Your task to perform on an android device: change keyboard looks Image 0: 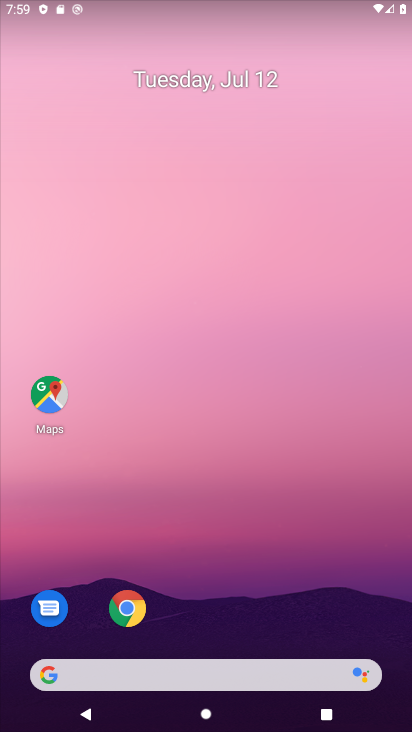
Step 0: drag from (172, 684) to (351, 135)
Your task to perform on an android device: change keyboard looks Image 1: 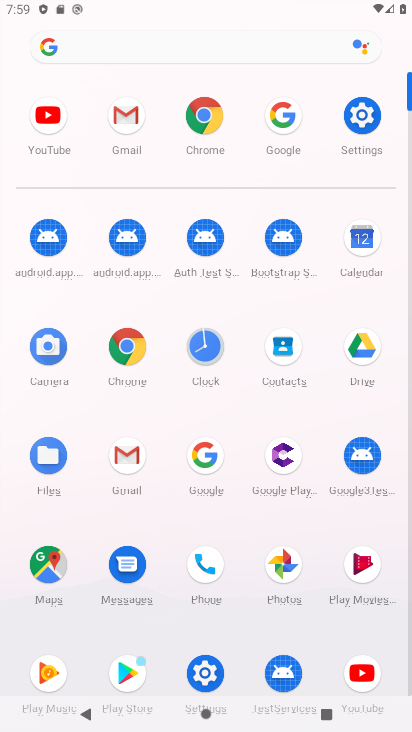
Step 1: click (366, 113)
Your task to perform on an android device: change keyboard looks Image 2: 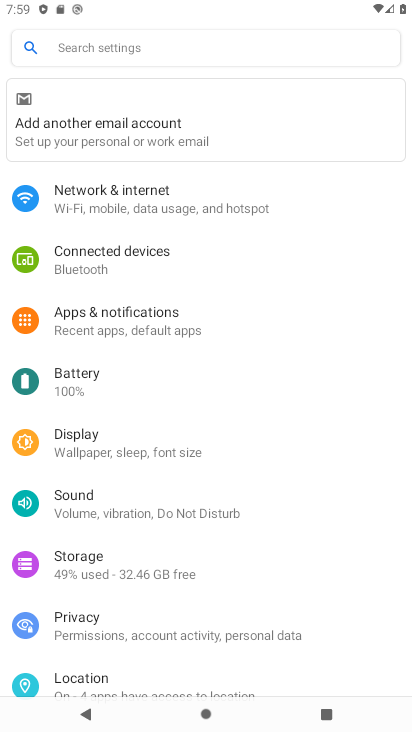
Step 2: drag from (147, 639) to (357, 5)
Your task to perform on an android device: change keyboard looks Image 3: 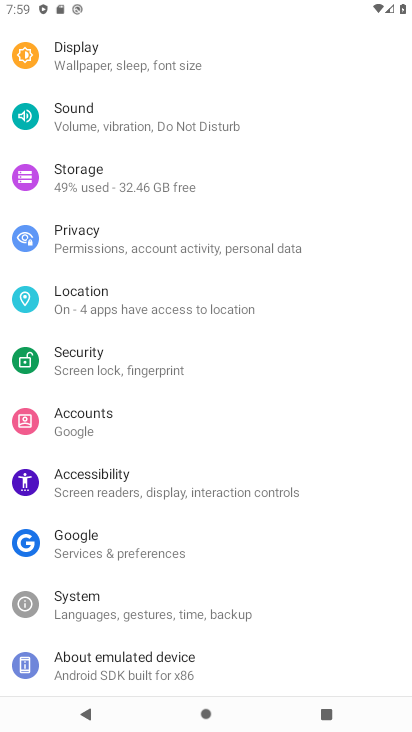
Step 3: click (166, 684)
Your task to perform on an android device: change keyboard looks Image 4: 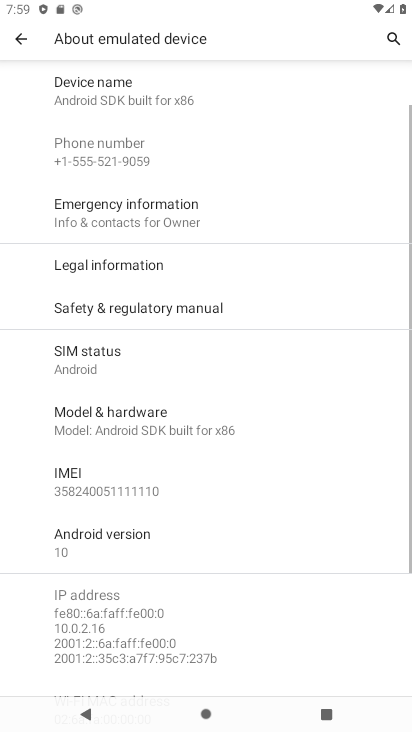
Step 4: press back button
Your task to perform on an android device: change keyboard looks Image 5: 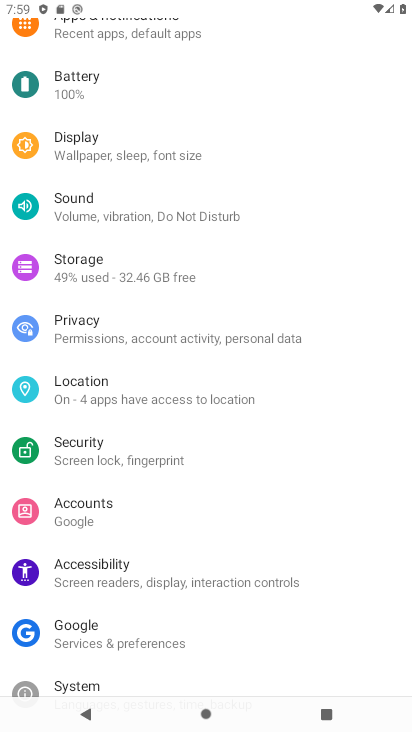
Step 5: drag from (99, 648) to (306, 112)
Your task to perform on an android device: change keyboard looks Image 6: 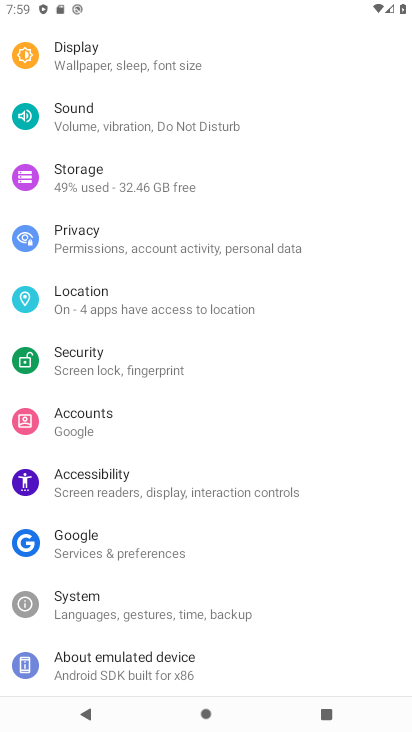
Step 6: click (121, 624)
Your task to perform on an android device: change keyboard looks Image 7: 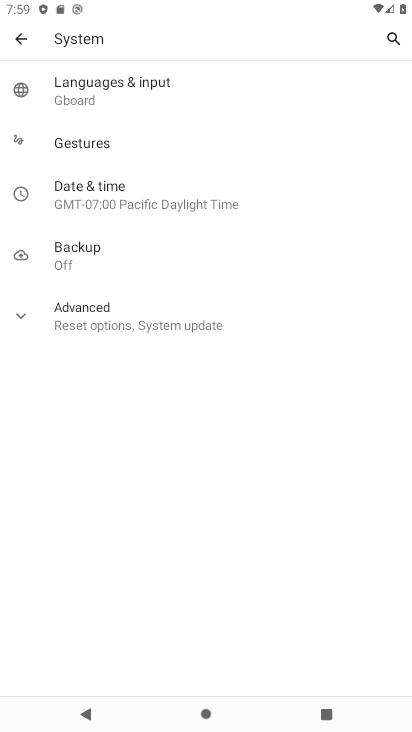
Step 7: click (115, 80)
Your task to perform on an android device: change keyboard looks Image 8: 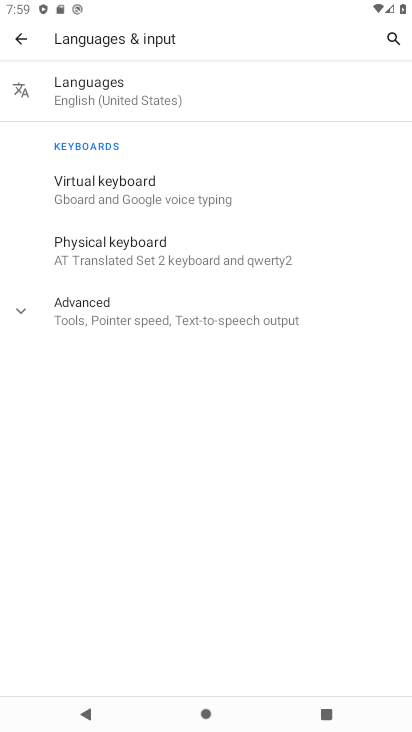
Step 8: click (138, 190)
Your task to perform on an android device: change keyboard looks Image 9: 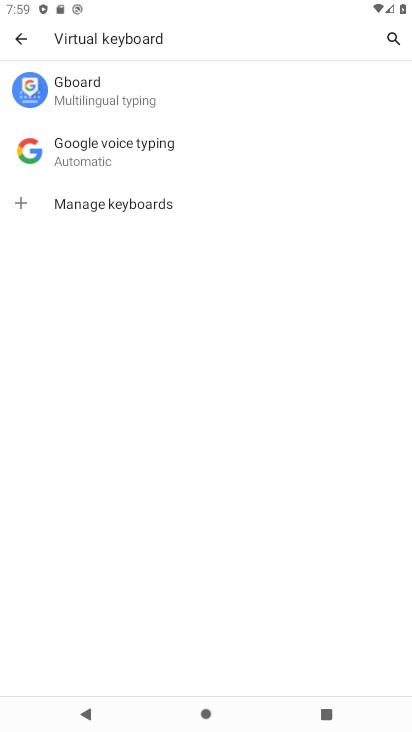
Step 9: click (110, 78)
Your task to perform on an android device: change keyboard looks Image 10: 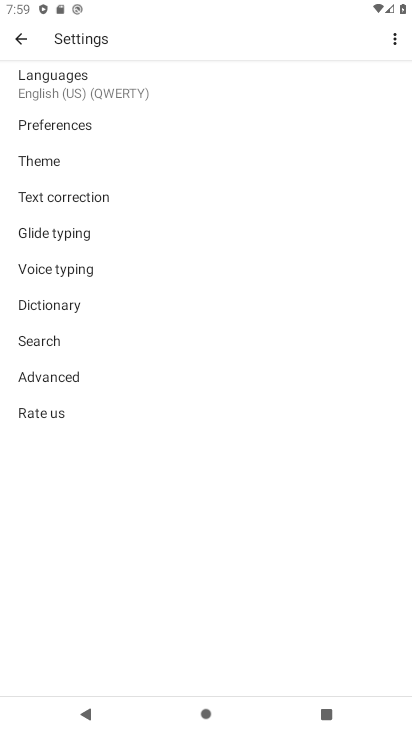
Step 10: click (51, 163)
Your task to perform on an android device: change keyboard looks Image 11: 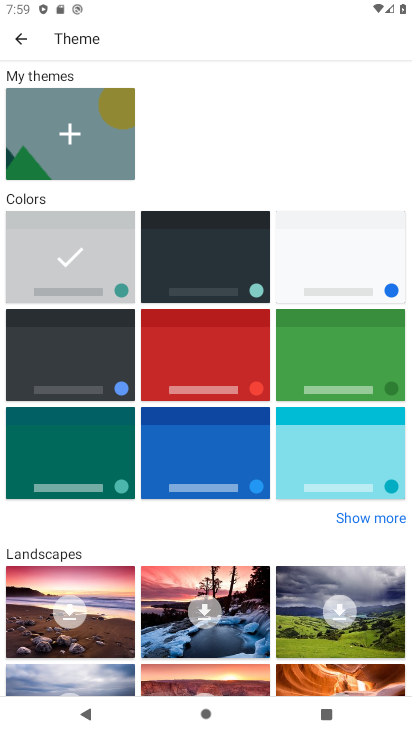
Step 11: click (365, 335)
Your task to perform on an android device: change keyboard looks Image 12: 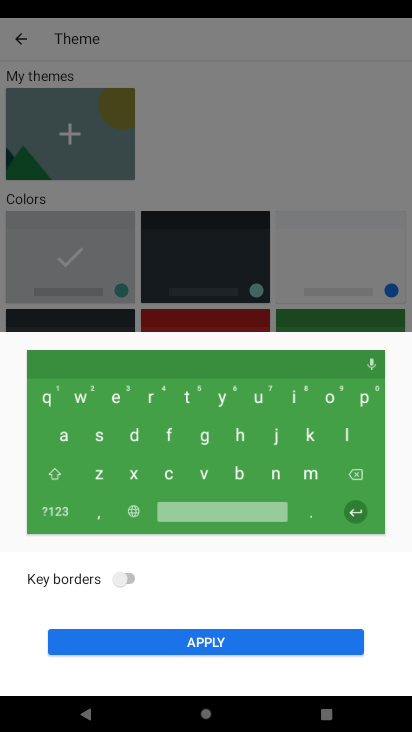
Step 12: click (191, 650)
Your task to perform on an android device: change keyboard looks Image 13: 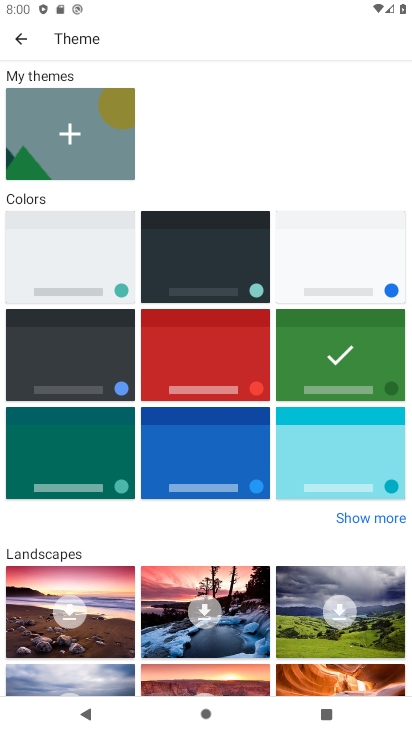
Step 13: task complete